Your task to perform on an android device: create a new album in the google photos Image 0: 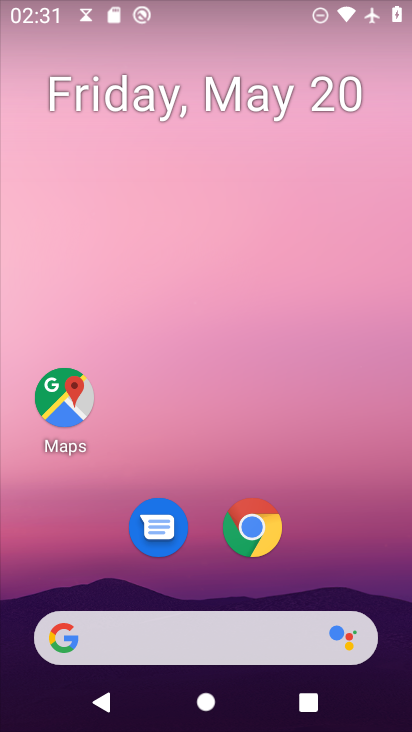
Step 0: press home button
Your task to perform on an android device: create a new album in the google photos Image 1: 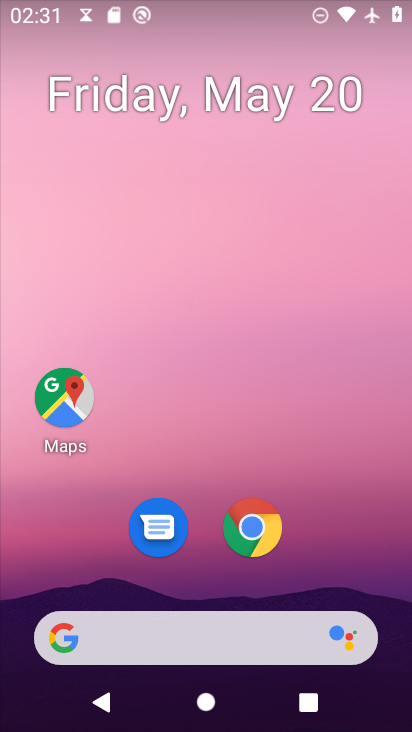
Step 1: drag from (186, 631) to (315, 173)
Your task to perform on an android device: create a new album in the google photos Image 2: 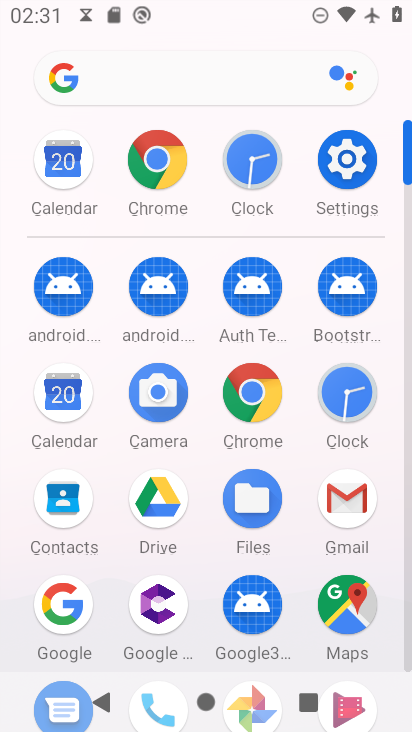
Step 2: drag from (199, 613) to (294, 277)
Your task to perform on an android device: create a new album in the google photos Image 3: 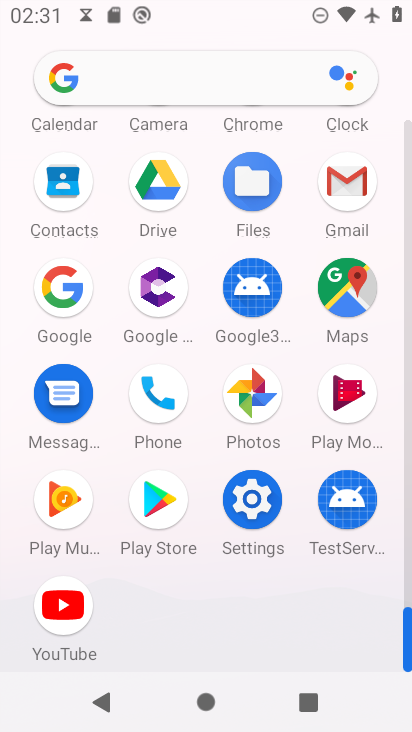
Step 3: click (256, 441)
Your task to perform on an android device: create a new album in the google photos Image 4: 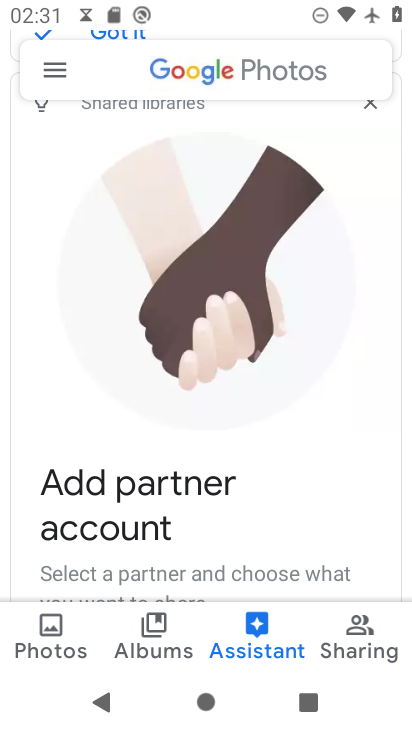
Step 4: click (160, 650)
Your task to perform on an android device: create a new album in the google photos Image 5: 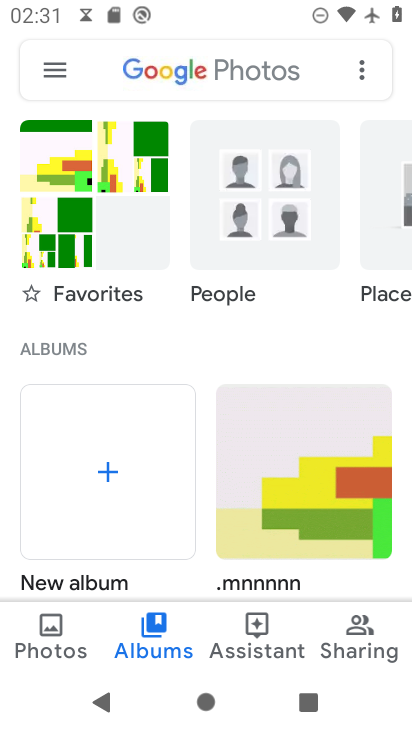
Step 5: click (108, 466)
Your task to perform on an android device: create a new album in the google photos Image 6: 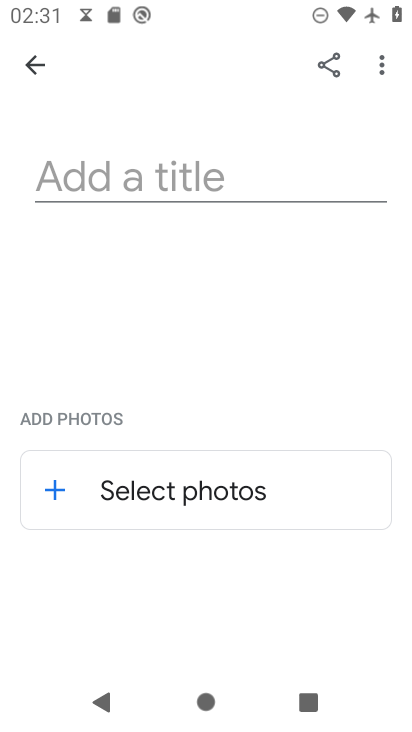
Step 6: click (156, 506)
Your task to perform on an android device: create a new album in the google photos Image 7: 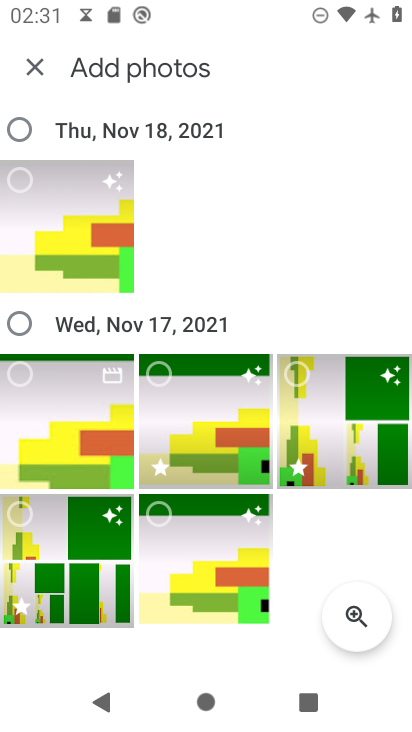
Step 7: click (57, 203)
Your task to perform on an android device: create a new album in the google photos Image 8: 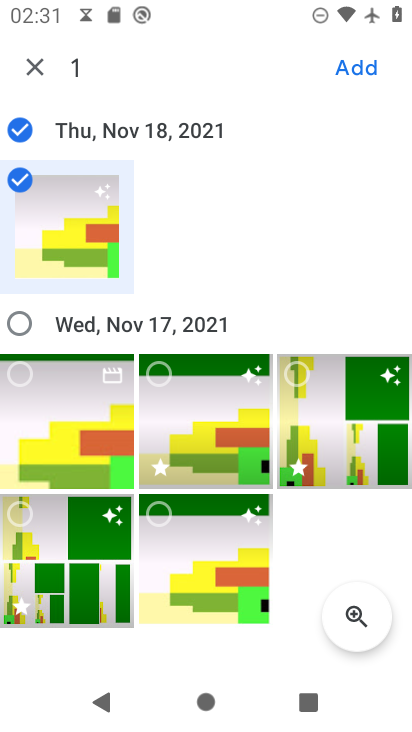
Step 8: click (72, 389)
Your task to perform on an android device: create a new album in the google photos Image 9: 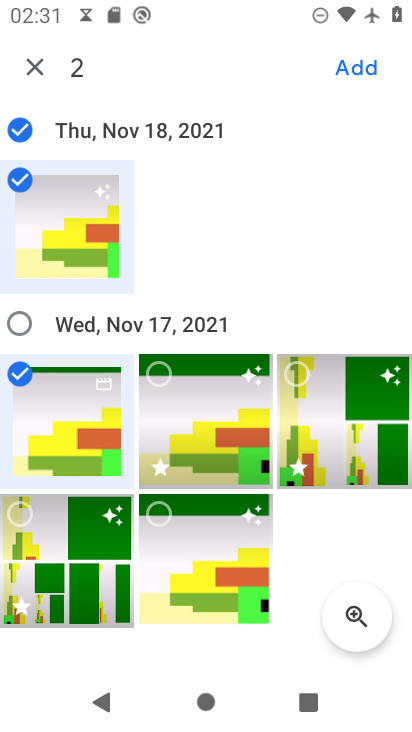
Step 9: click (177, 400)
Your task to perform on an android device: create a new album in the google photos Image 10: 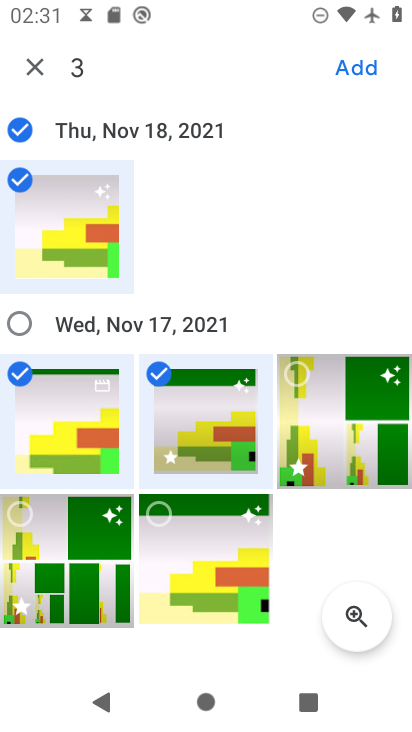
Step 10: click (377, 71)
Your task to perform on an android device: create a new album in the google photos Image 11: 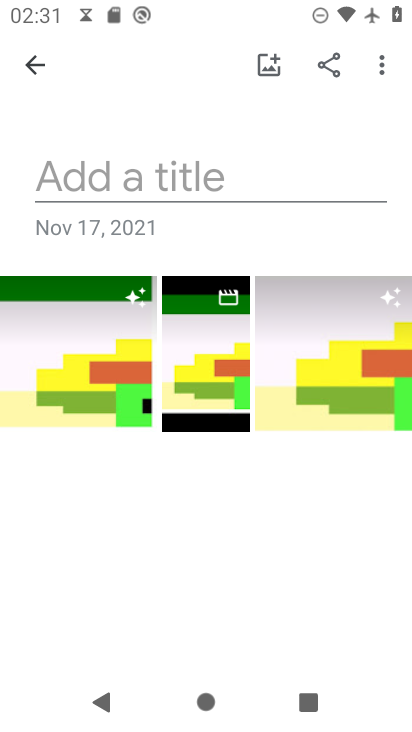
Step 11: task complete